Your task to perform on an android device: Do I have any events today? Image 0: 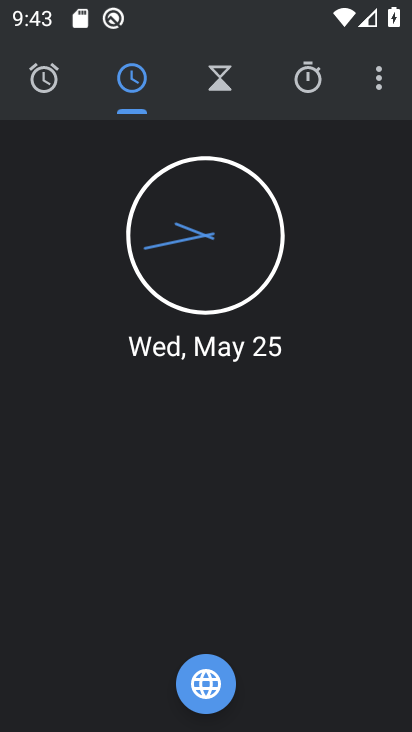
Step 0: press home button
Your task to perform on an android device: Do I have any events today? Image 1: 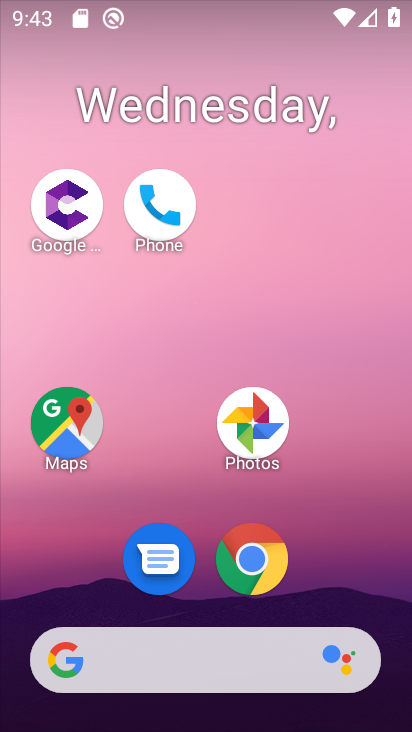
Step 1: drag from (350, 579) to (252, 75)
Your task to perform on an android device: Do I have any events today? Image 2: 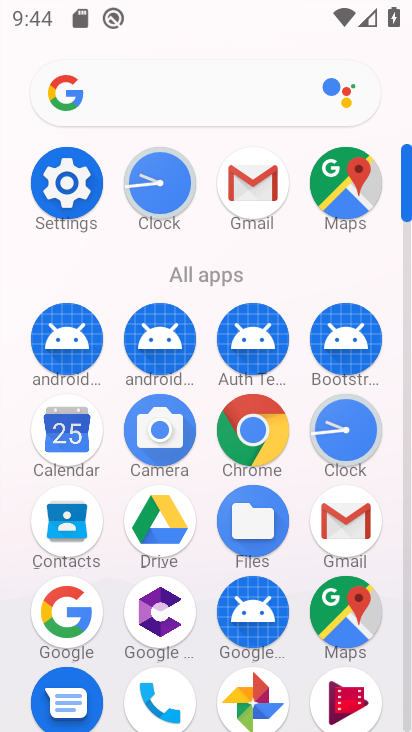
Step 2: click (62, 442)
Your task to perform on an android device: Do I have any events today? Image 3: 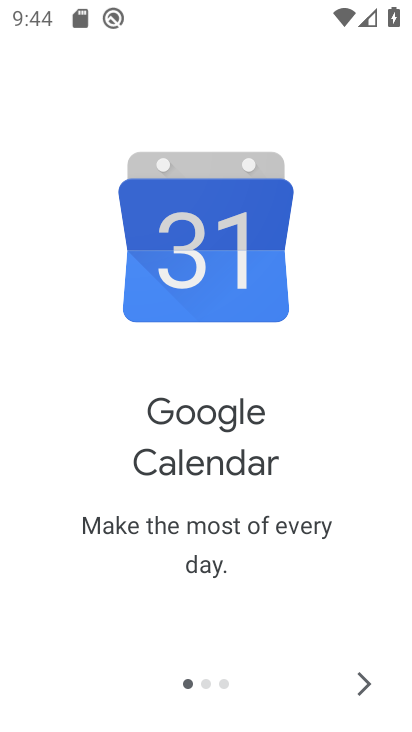
Step 3: click (366, 678)
Your task to perform on an android device: Do I have any events today? Image 4: 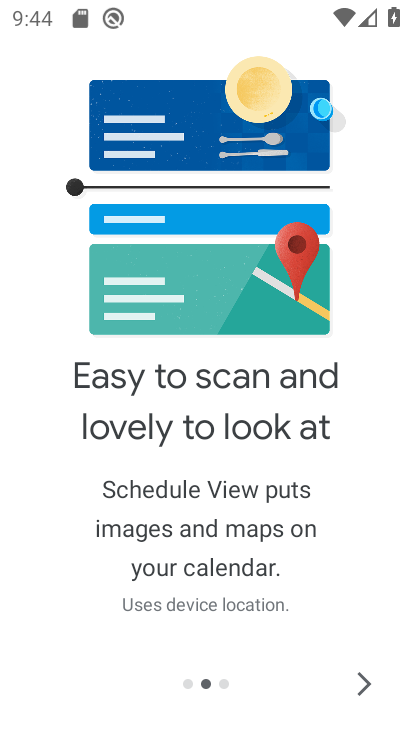
Step 4: click (366, 678)
Your task to perform on an android device: Do I have any events today? Image 5: 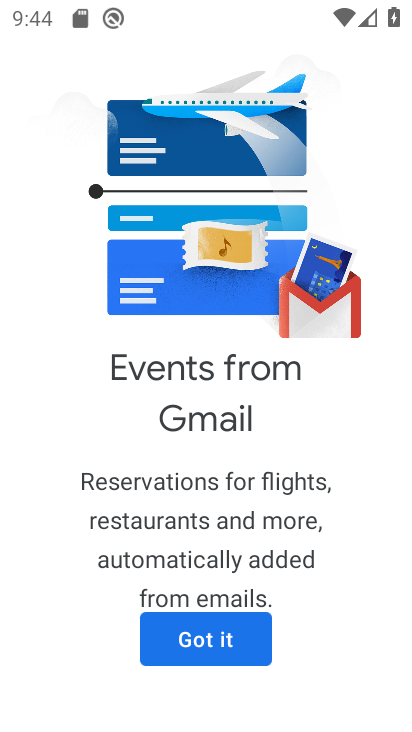
Step 5: click (232, 639)
Your task to perform on an android device: Do I have any events today? Image 6: 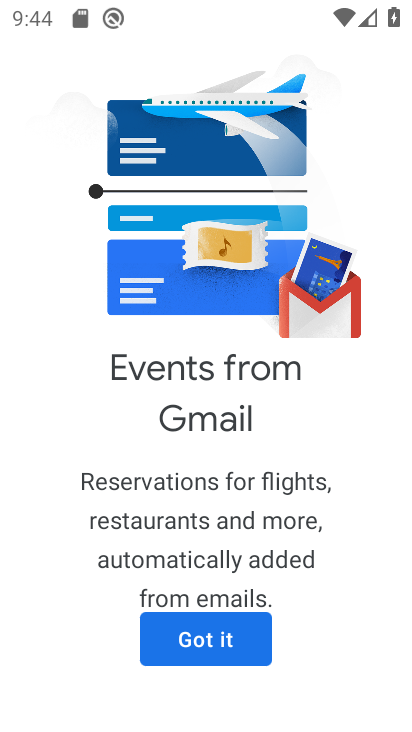
Step 6: click (232, 639)
Your task to perform on an android device: Do I have any events today? Image 7: 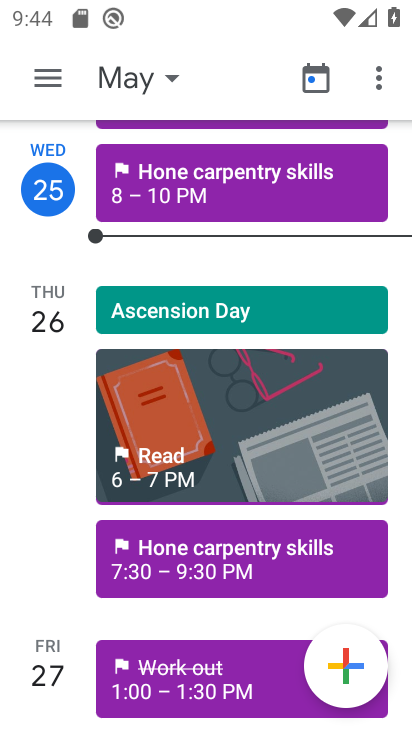
Step 7: click (100, 79)
Your task to perform on an android device: Do I have any events today? Image 8: 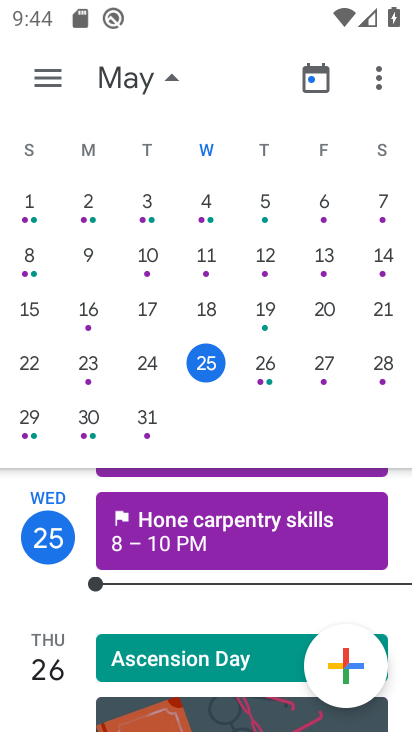
Step 8: click (144, 76)
Your task to perform on an android device: Do I have any events today? Image 9: 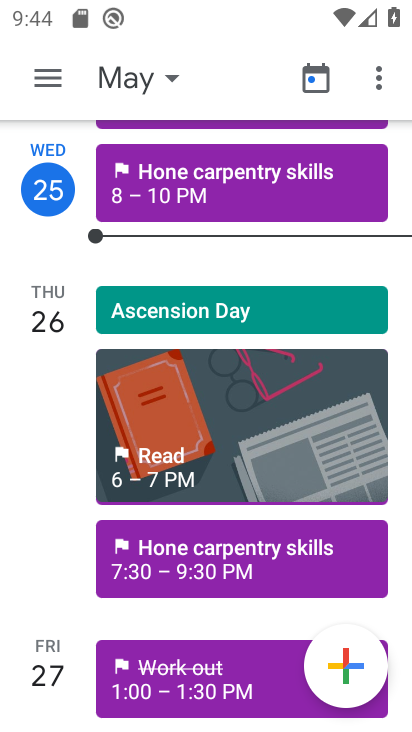
Step 9: task complete